Your task to perform on an android device: What's the weather today? Image 0: 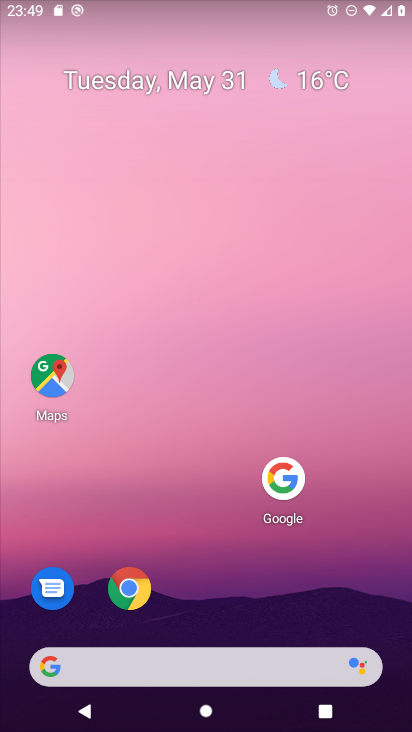
Step 0: click (304, 78)
Your task to perform on an android device: What's the weather today? Image 1: 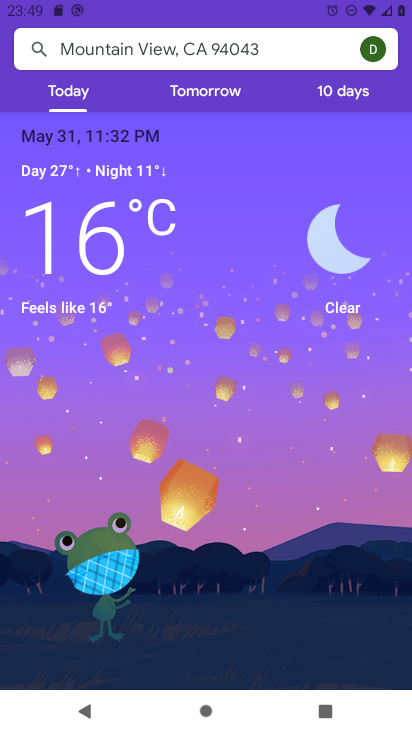
Step 1: task complete